Your task to perform on an android device: Open Google Chrome and click the shortcut for Amazon.com Image 0: 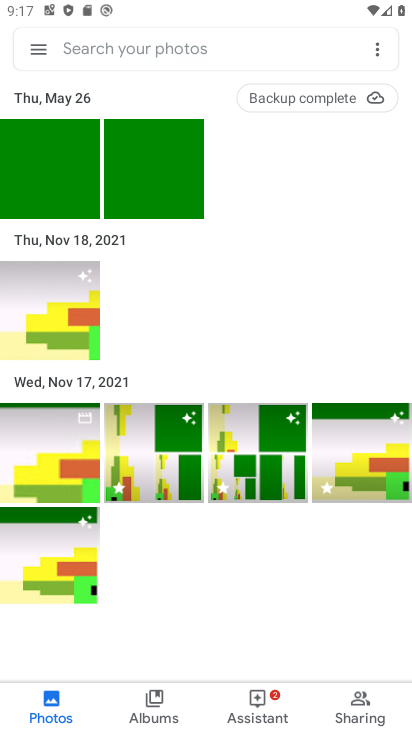
Step 0: press home button
Your task to perform on an android device: Open Google Chrome and click the shortcut for Amazon.com Image 1: 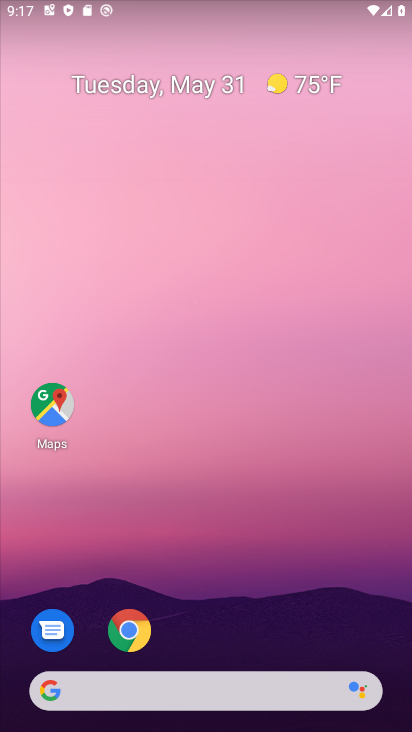
Step 1: click (136, 638)
Your task to perform on an android device: Open Google Chrome and click the shortcut for Amazon.com Image 2: 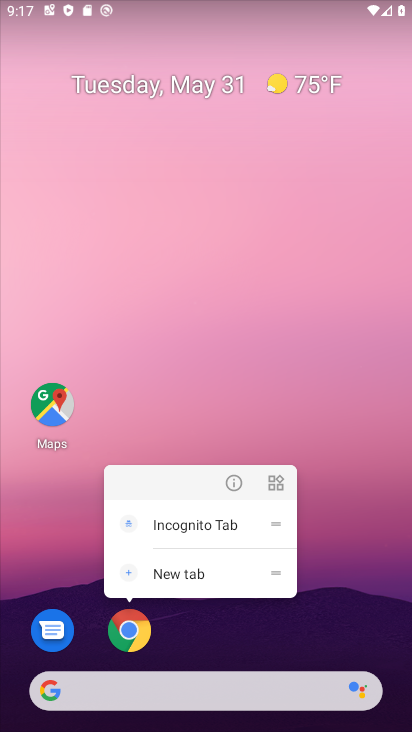
Step 2: click (136, 638)
Your task to perform on an android device: Open Google Chrome and click the shortcut for Amazon.com Image 3: 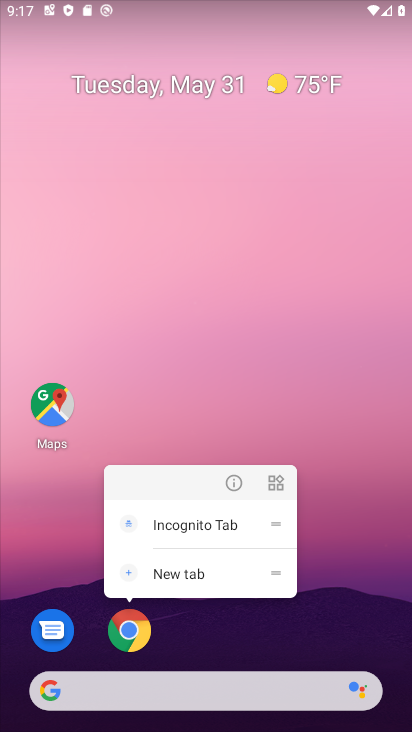
Step 3: click (133, 648)
Your task to perform on an android device: Open Google Chrome and click the shortcut for Amazon.com Image 4: 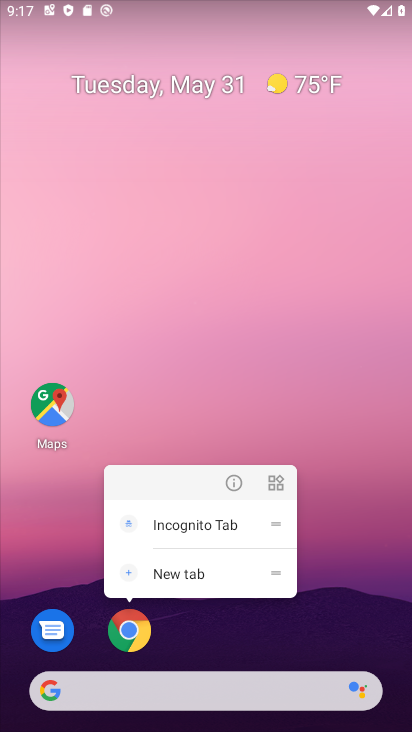
Step 4: click (133, 645)
Your task to perform on an android device: Open Google Chrome and click the shortcut for Amazon.com Image 5: 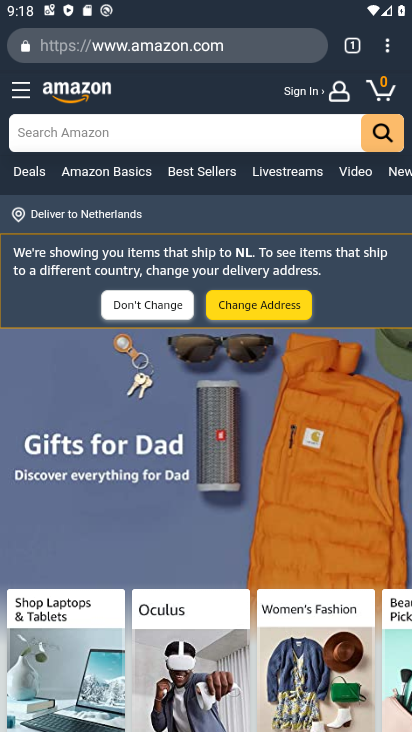
Step 5: drag from (355, 51) to (337, 212)
Your task to perform on an android device: Open Google Chrome and click the shortcut for Amazon.com Image 6: 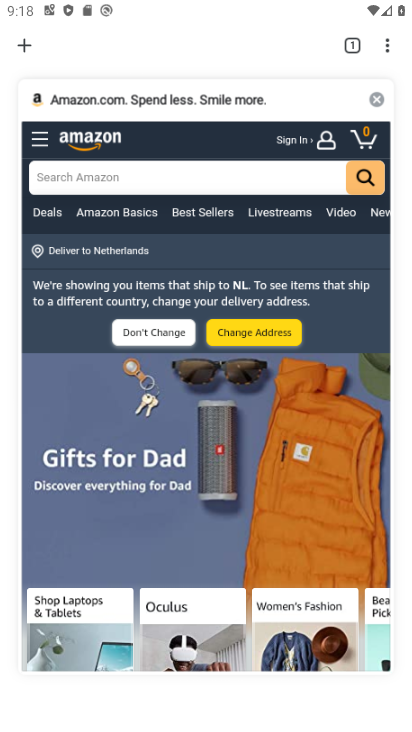
Step 6: click (22, 51)
Your task to perform on an android device: Open Google Chrome and click the shortcut for Amazon.com Image 7: 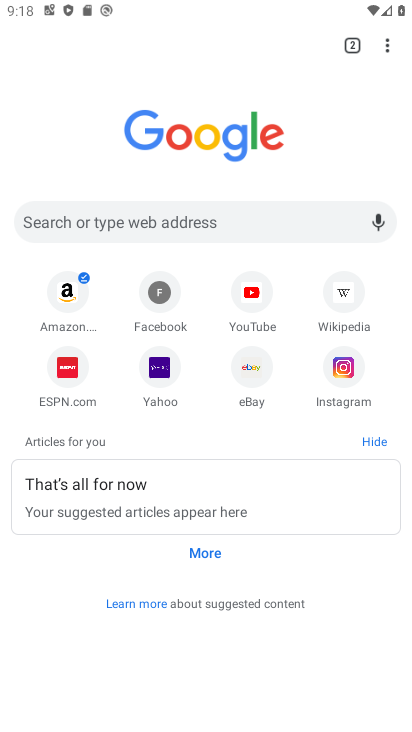
Step 7: click (76, 304)
Your task to perform on an android device: Open Google Chrome and click the shortcut for Amazon.com Image 8: 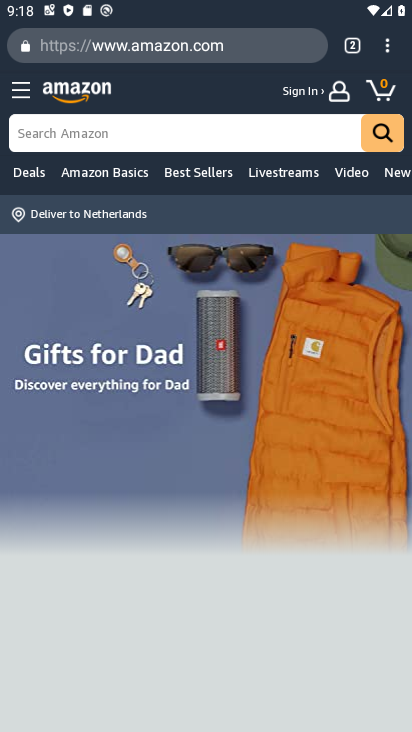
Step 8: task complete